Your task to perform on an android device: Open Maps and search for coffee Image 0: 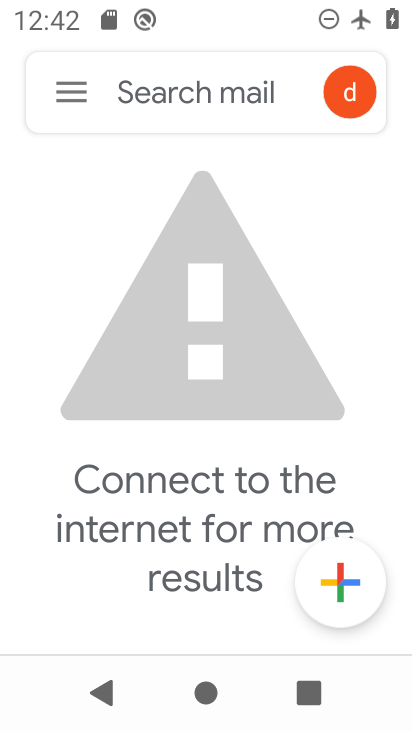
Step 0: press home button
Your task to perform on an android device: Open Maps and search for coffee Image 1: 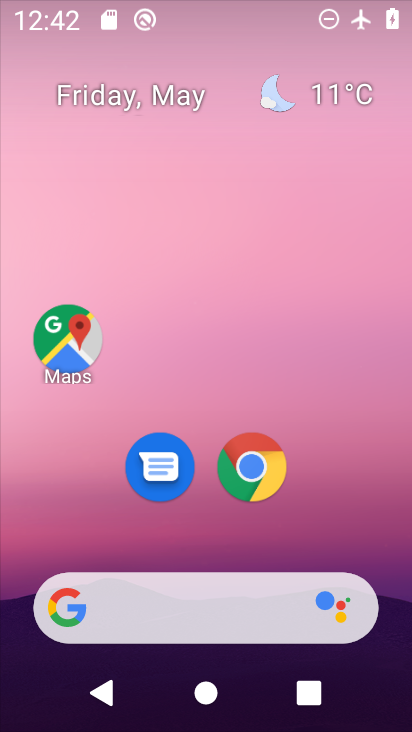
Step 1: drag from (390, 517) to (323, 142)
Your task to perform on an android device: Open Maps and search for coffee Image 2: 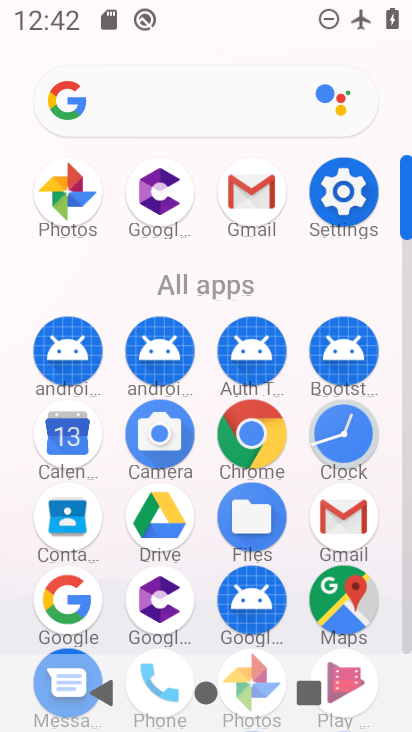
Step 2: click (345, 588)
Your task to perform on an android device: Open Maps and search for coffee Image 3: 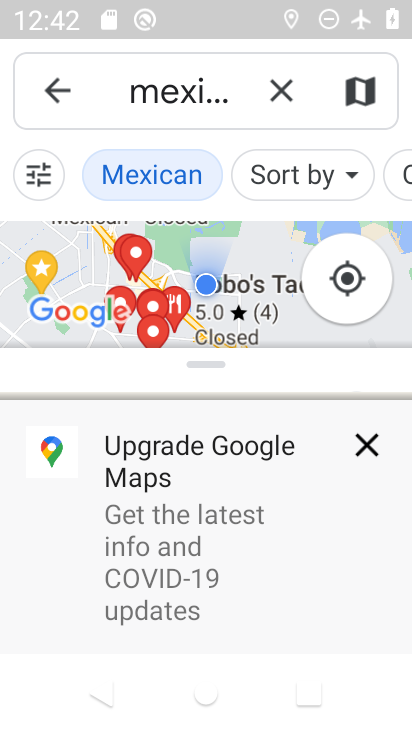
Step 3: click (285, 93)
Your task to perform on an android device: Open Maps and search for coffee Image 4: 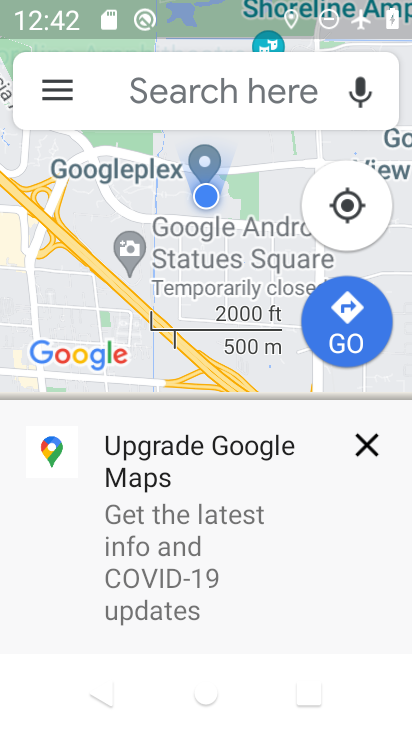
Step 4: click (255, 96)
Your task to perform on an android device: Open Maps and search for coffee Image 5: 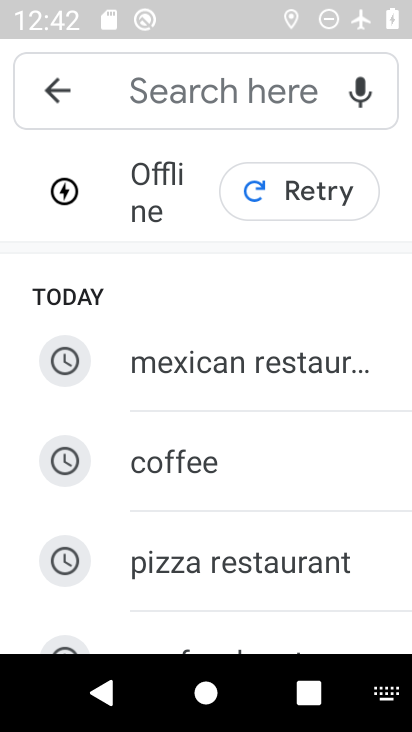
Step 5: type "coffee"
Your task to perform on an android device: Open Maps and search for coffee Image 6: 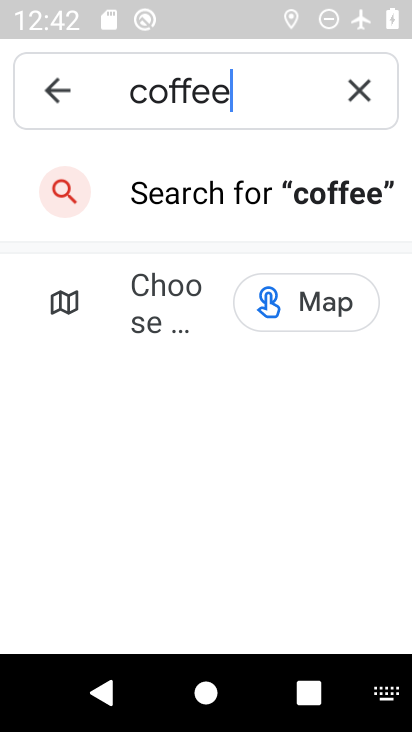
Step 6: click (197, 187)
Your task to perform on an android device: Open Maps and search for coffee Image 7: 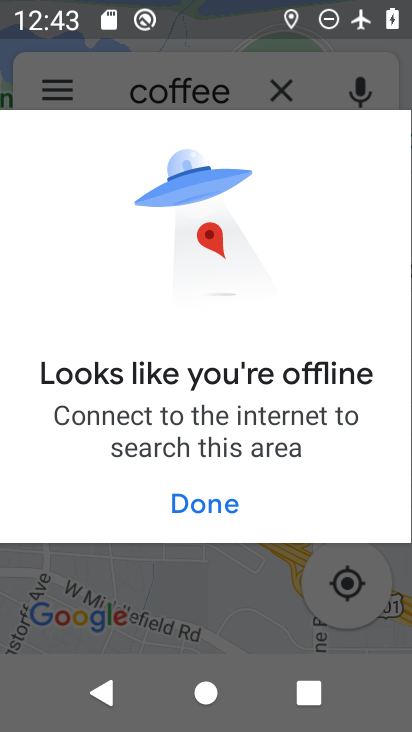
Step 7: task complete